Your task to perform on an android device: What is the recent news? Image 0: 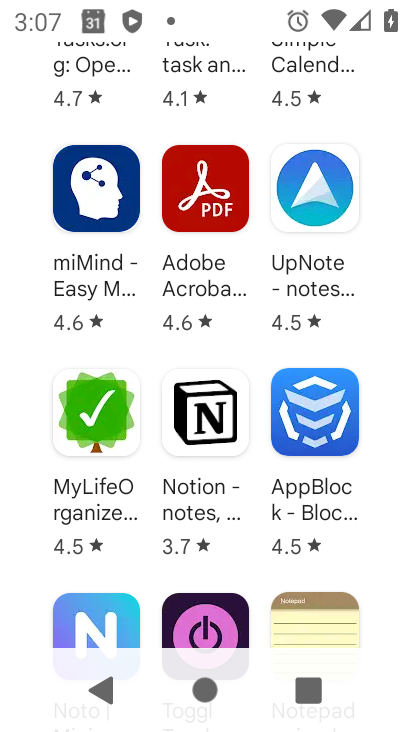
Step 0: press home button
Your task to perform on an android device: What is the recent news? Image 1: 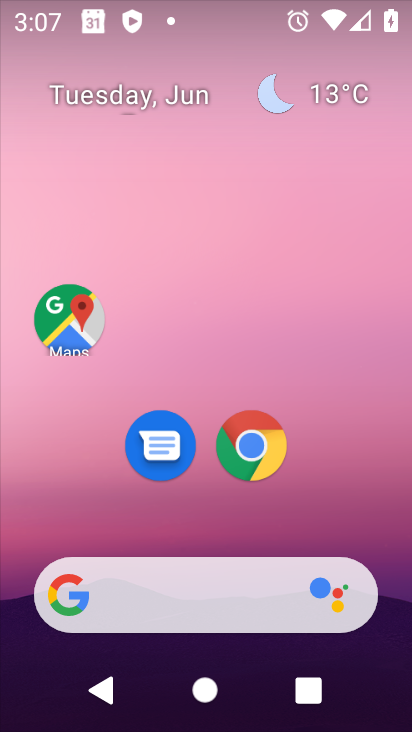
Step 1: task complete